Your task to perform on an android device: Go to accessibility settings Image 0: 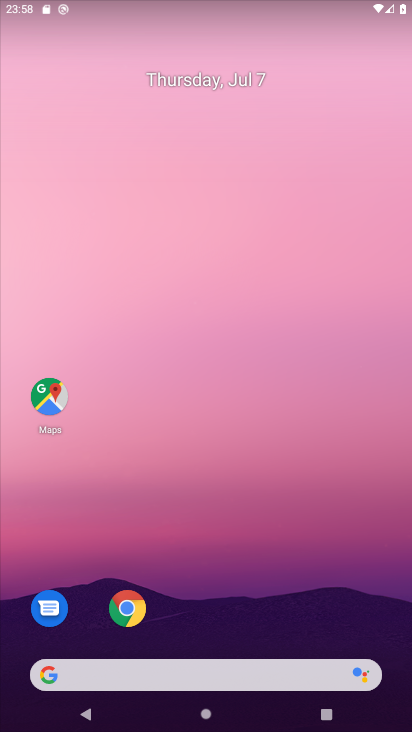
Step 0: drag from (199, 632) to (212, 203)
Your task to perform on an android device: Go to accessibility settings Image 1: 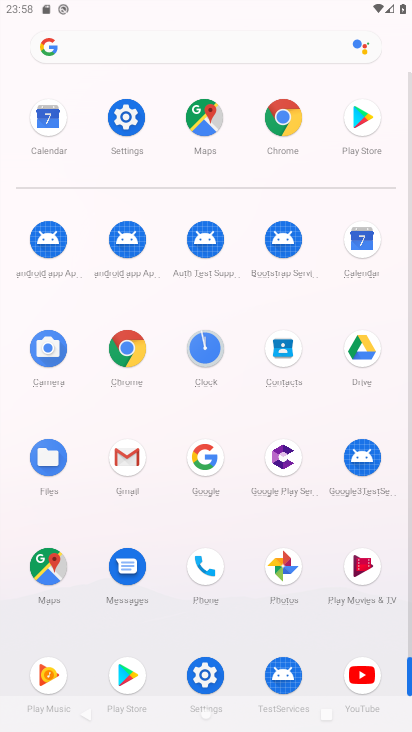
Step 1: click (128, 103)
Your task to perform on an android device: Go to accessibility settings Image 2: 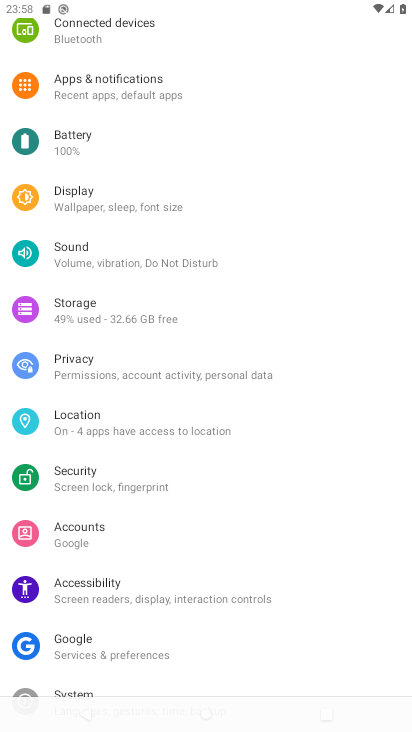
Step 2: click (124, 598)
Your task to perform on an android device: Go to accessibility settings Image 3: 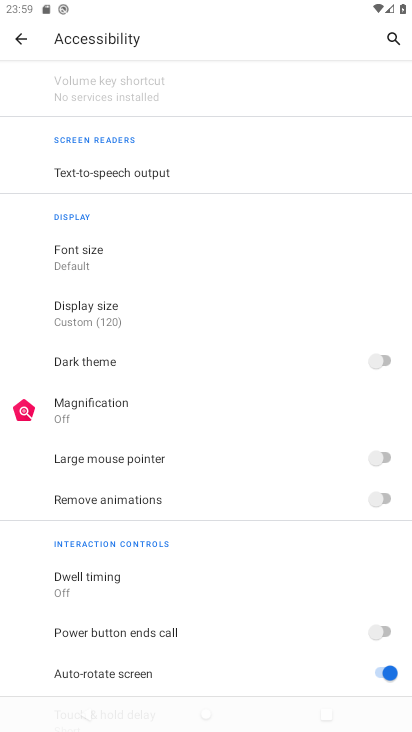
Step 3: task complete